Your task to perform on an android device: Go to battery settings Image 0: 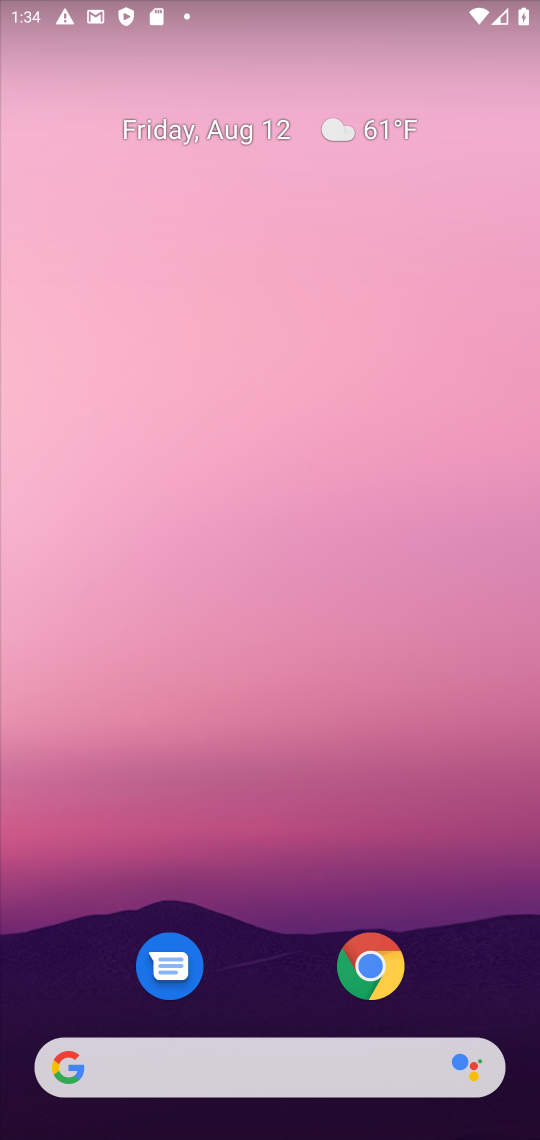
Step 0: drag from (284, 901) to (472, 57)
Your task to perform on an android device: Go to battery settings Image 1: 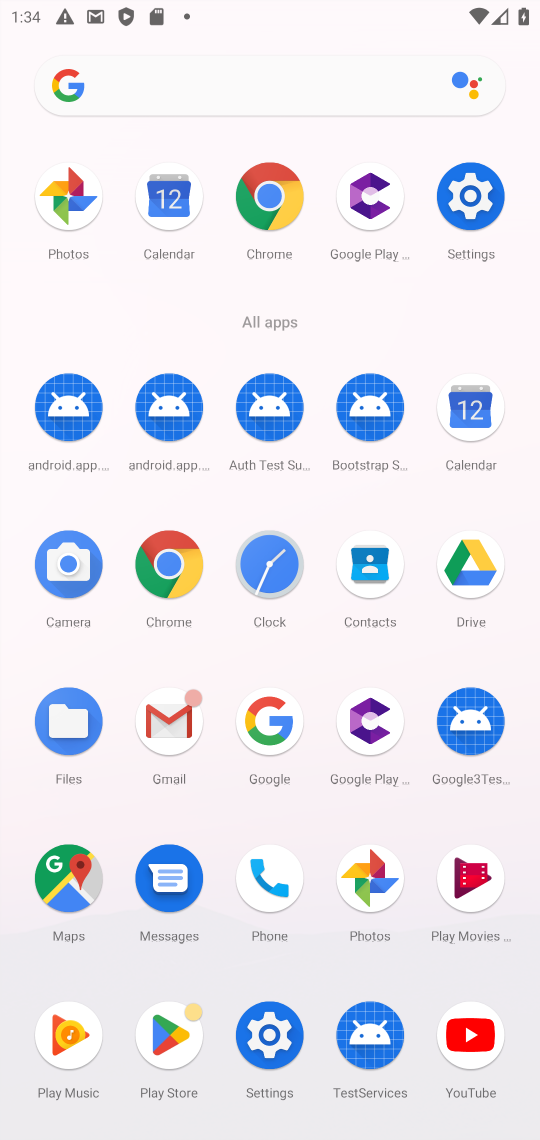
Step 1: click (480, 203)
Your task to perform on an android device: Go to battery settings Image 2: 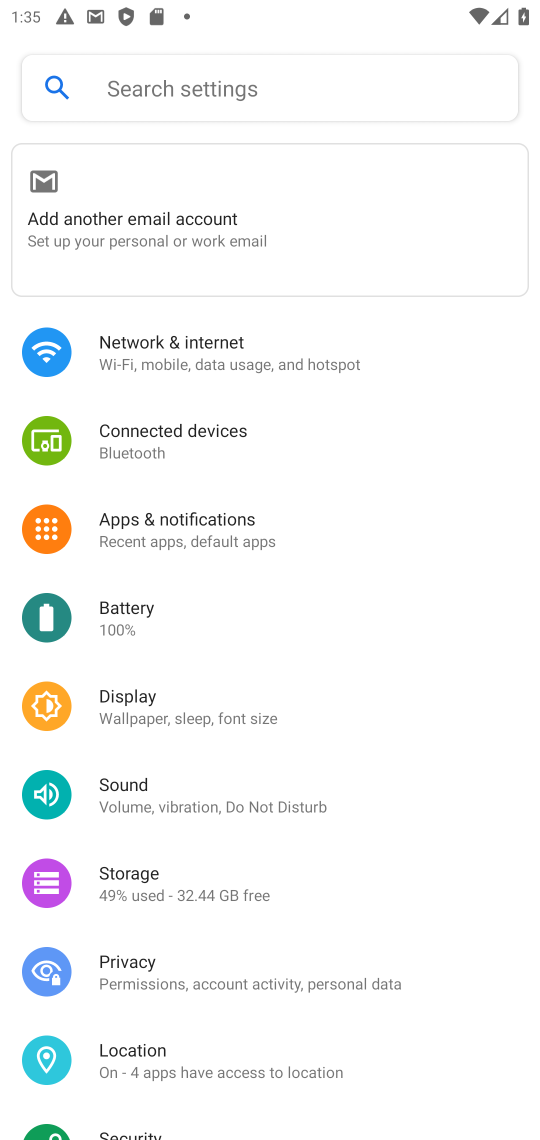
Step 2: drag from (317, 1038) to (389, 449)
Your task to perform on an android device: Go to battery settings Image 3: 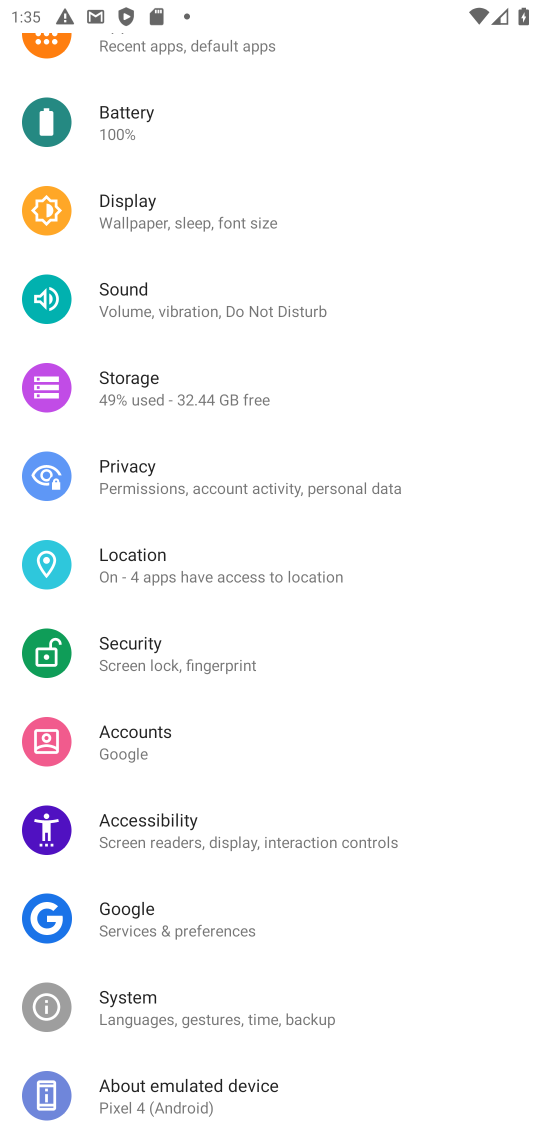
Step 3: click (143, 116)
Your task to perform on an android device: Go to battery settings Image 4: 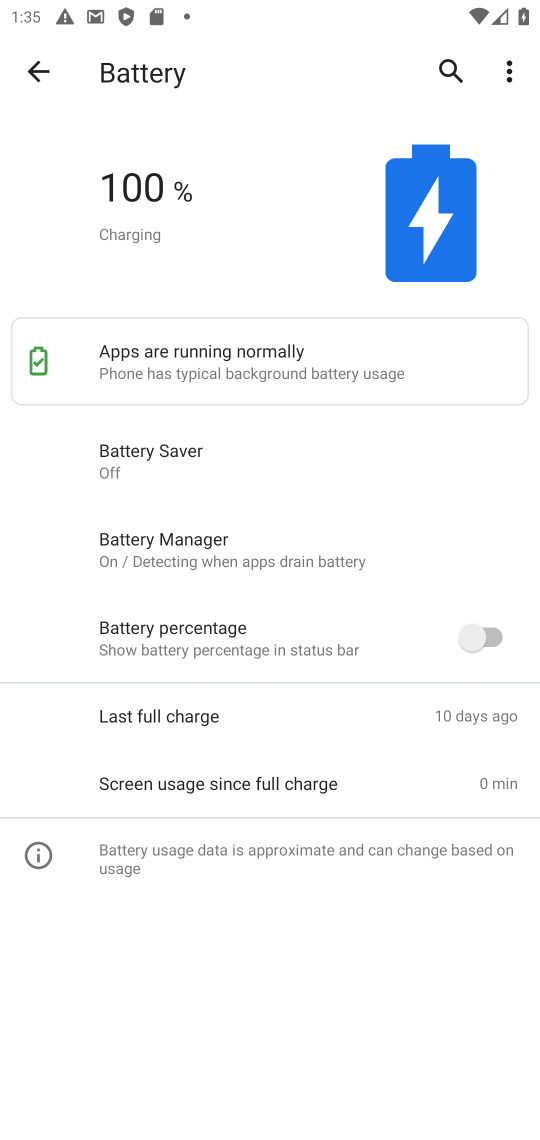
Step 4: task complete